Your task to perform on an android device: open sync settings in chrome Image 0: 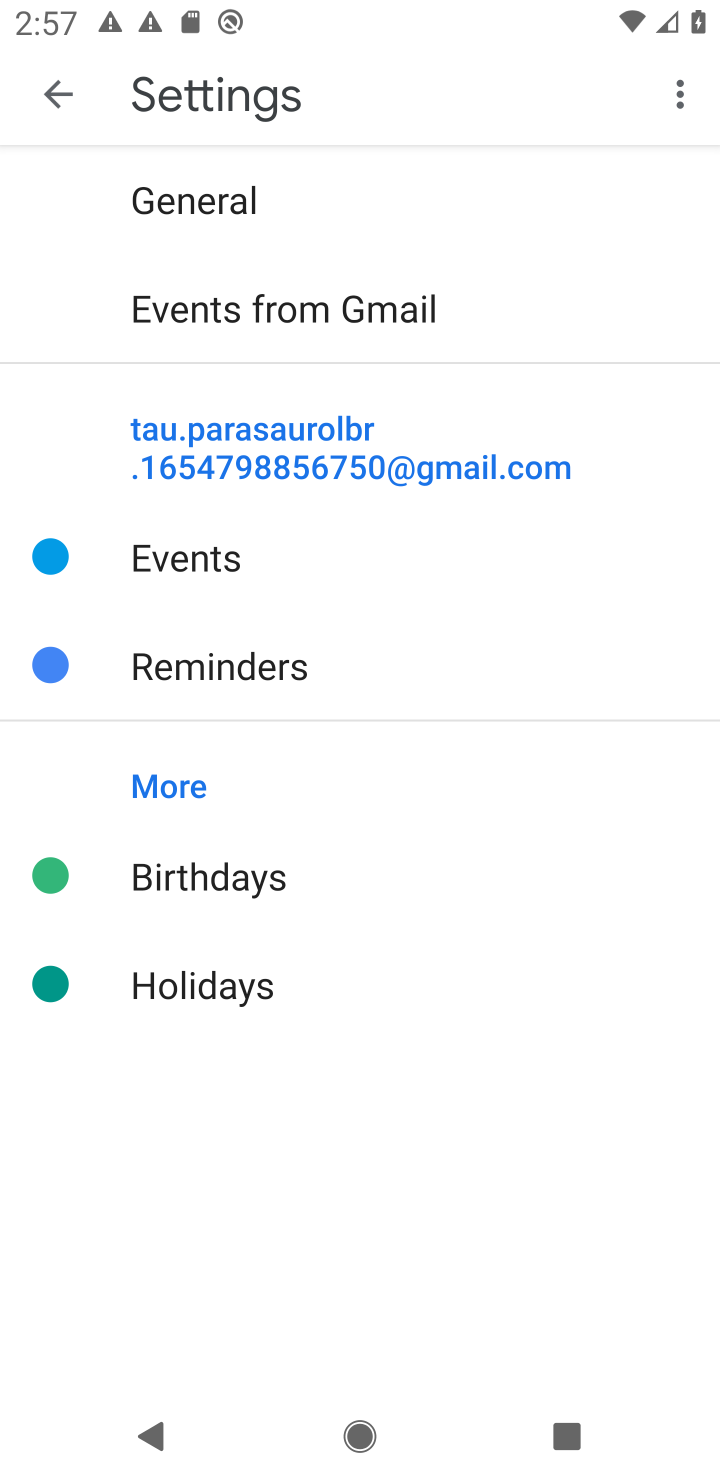
Step 0: press home button
Your task to perform on an android device: open sync settings in chrome Image 1: 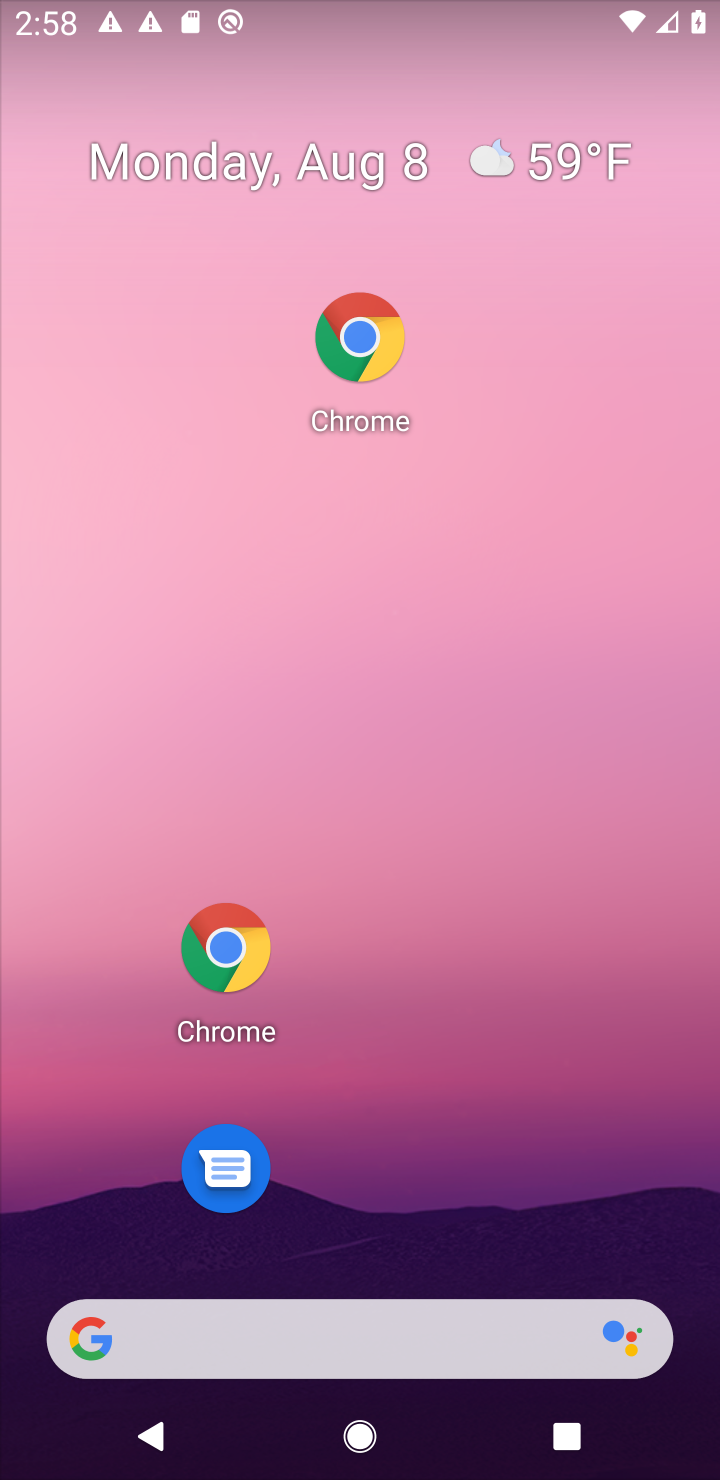
Step 1: click (226, 965)
Your task to perform on an android device: open sync settings in chrome Image 2: 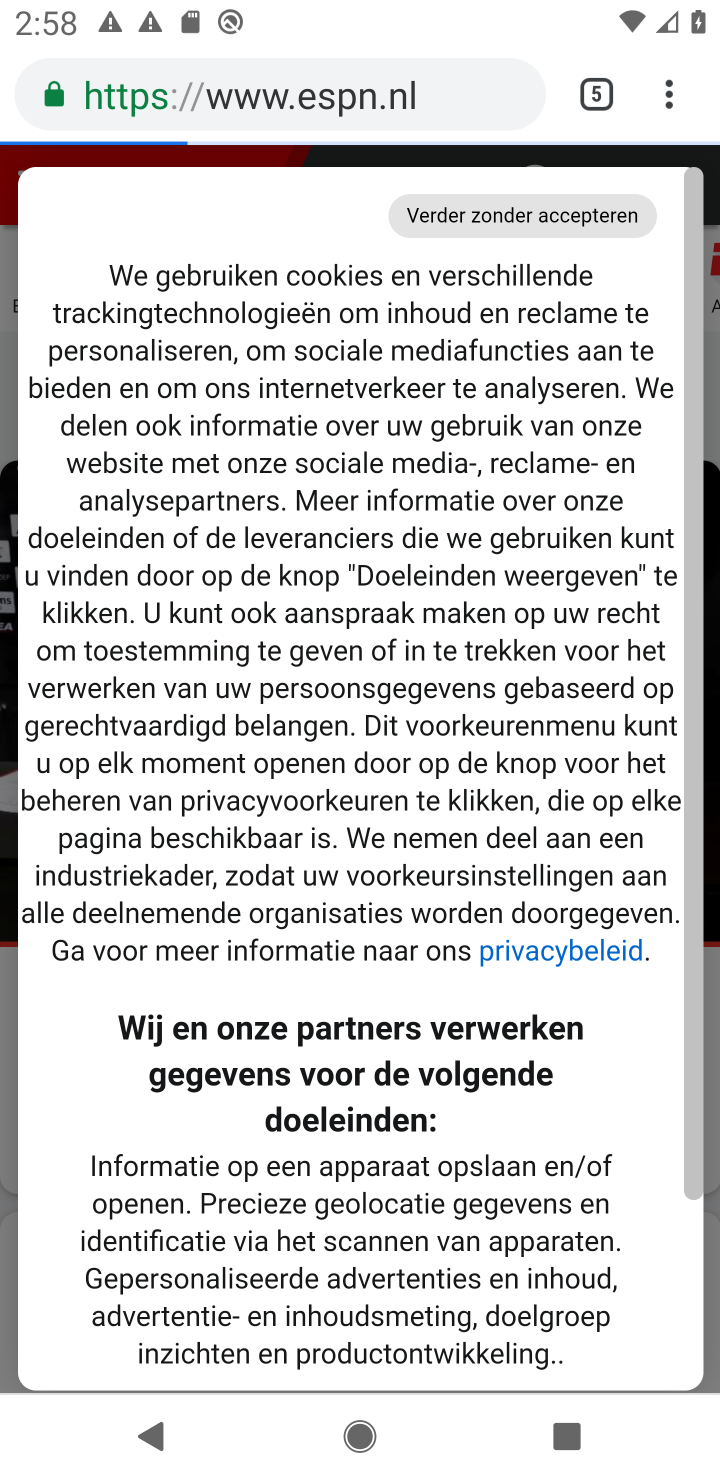
Step 2: click (680, 98)
Your task to perform on an android device: open sync settings in chrome Image 3: 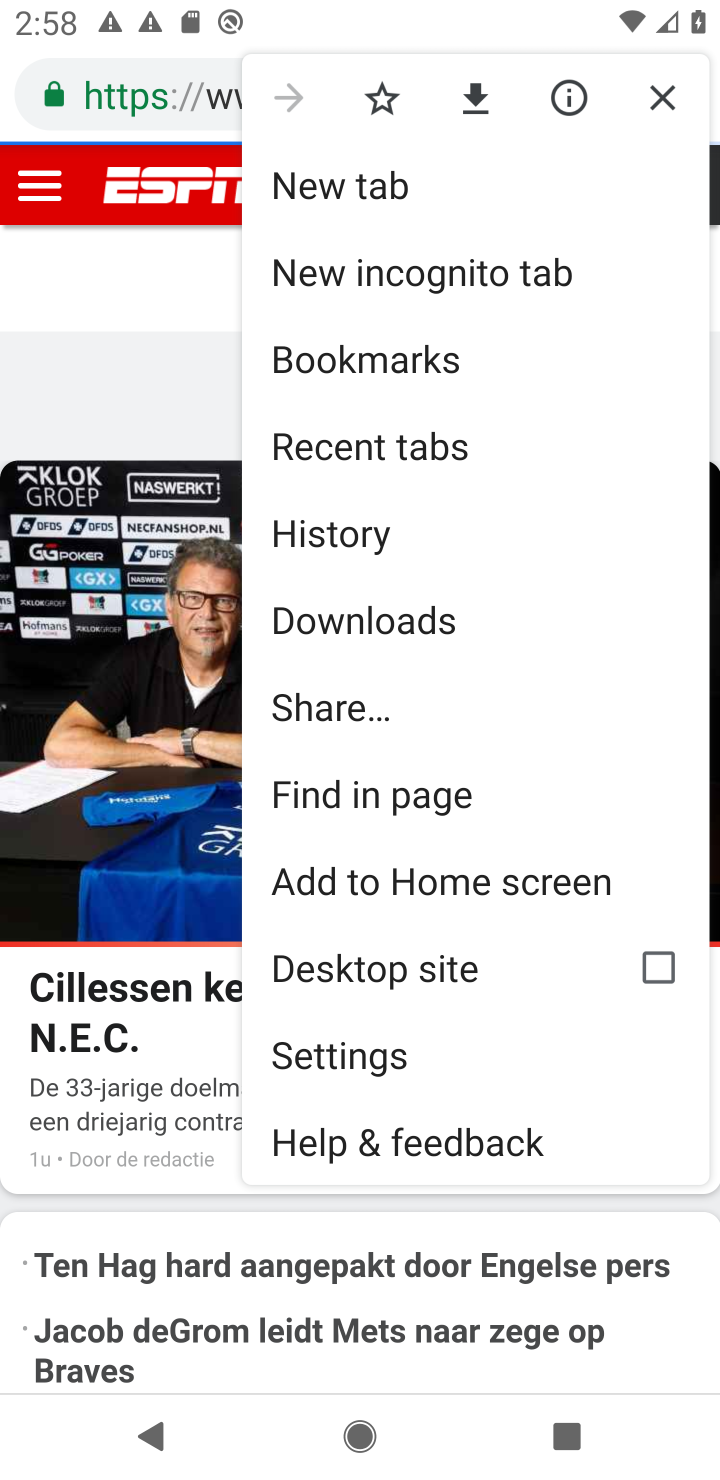
Step 3: click (423, 1034)
Your task to perform on an android device: open sync settings in chrome Image 4: 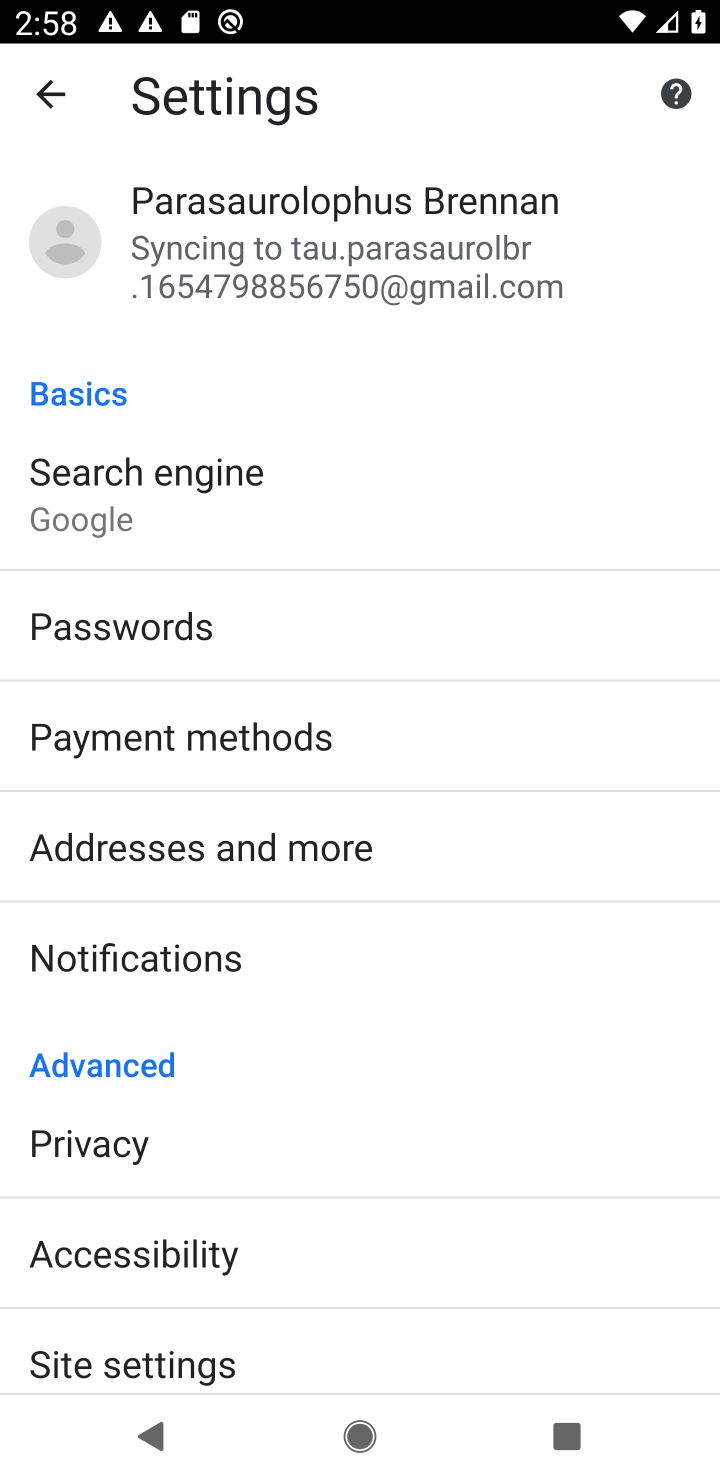
Step 4: drag from (391, 1264) to (427, 518)
Your task to perform on an android device: open sync settings in chrome Image 5: 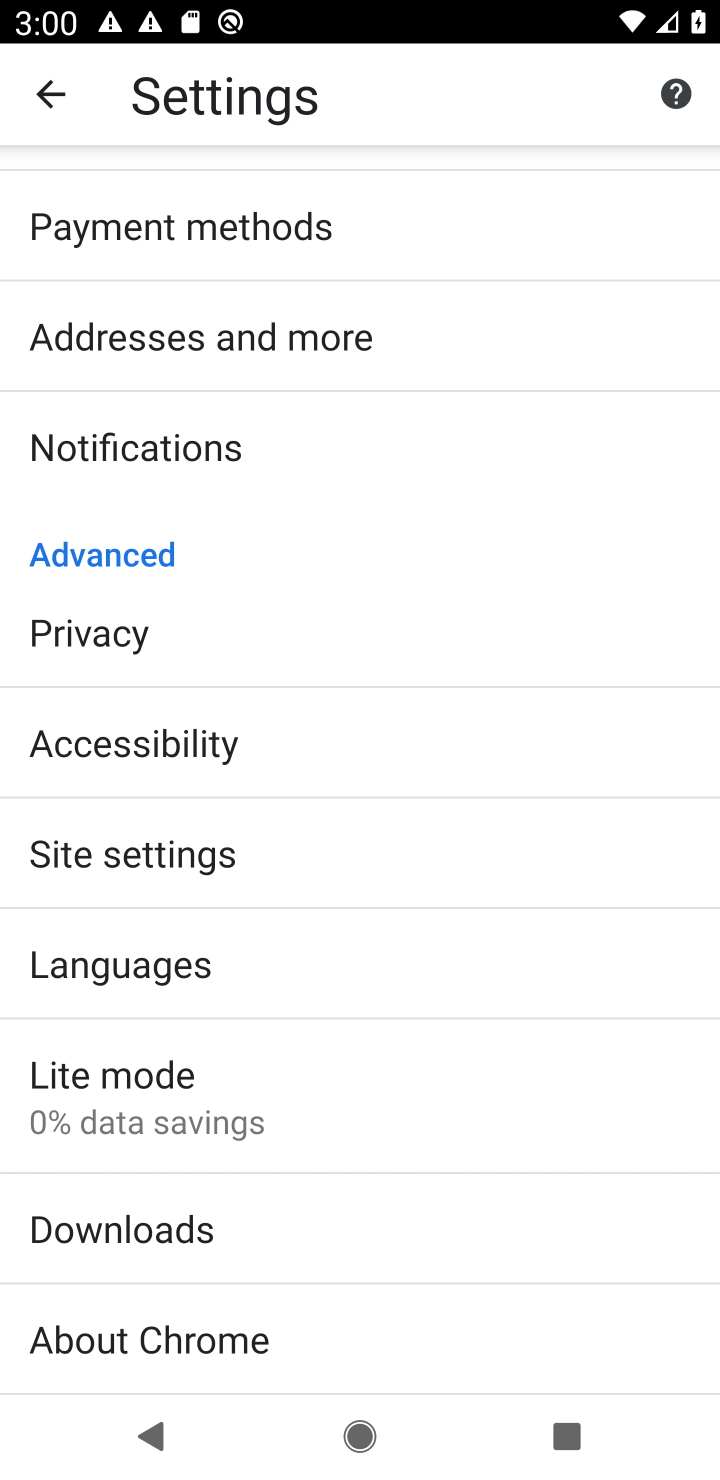
Step 5: click (390, 884)
Your task to perform on an android device: open sync settings in chrome Image 6: 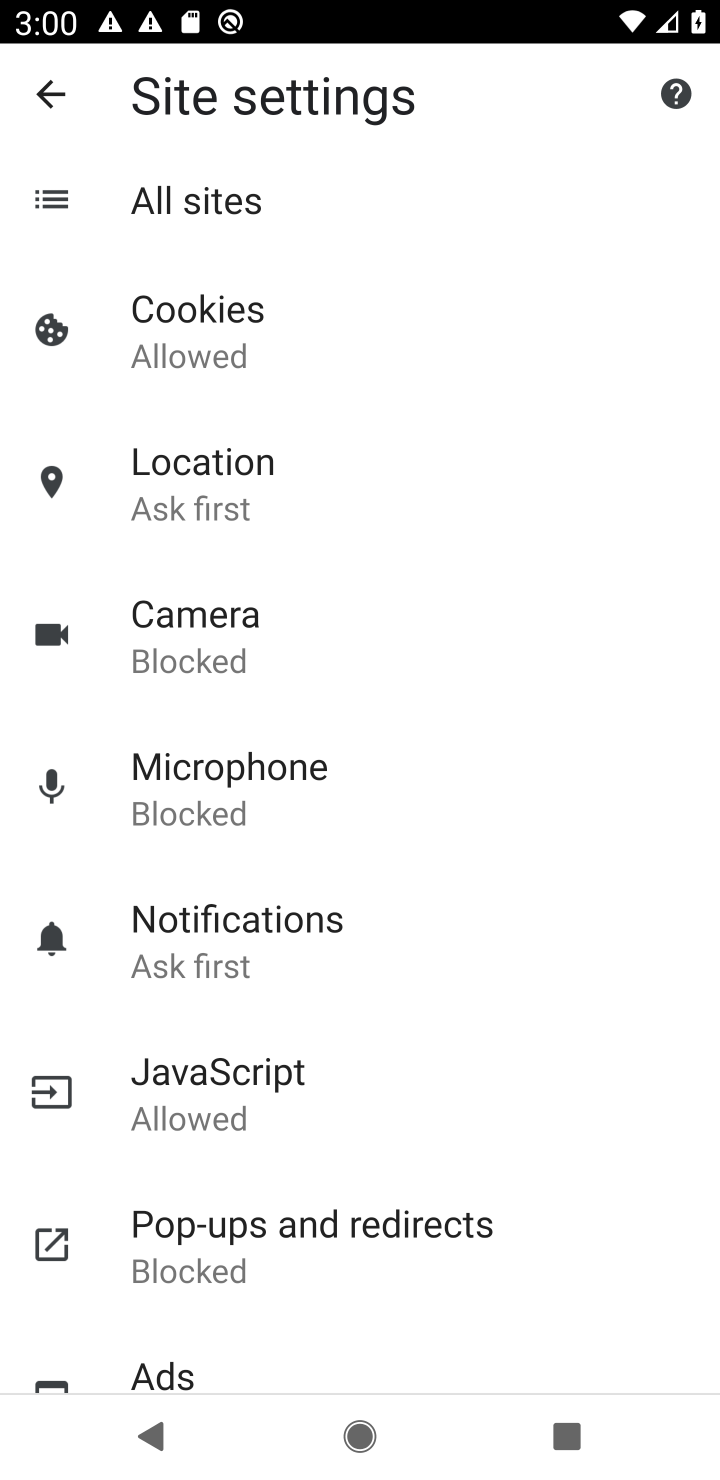
Step 6: task complete